Your task to perform on an android device: read, delete, or share a saved page in the chrome app Image 0: 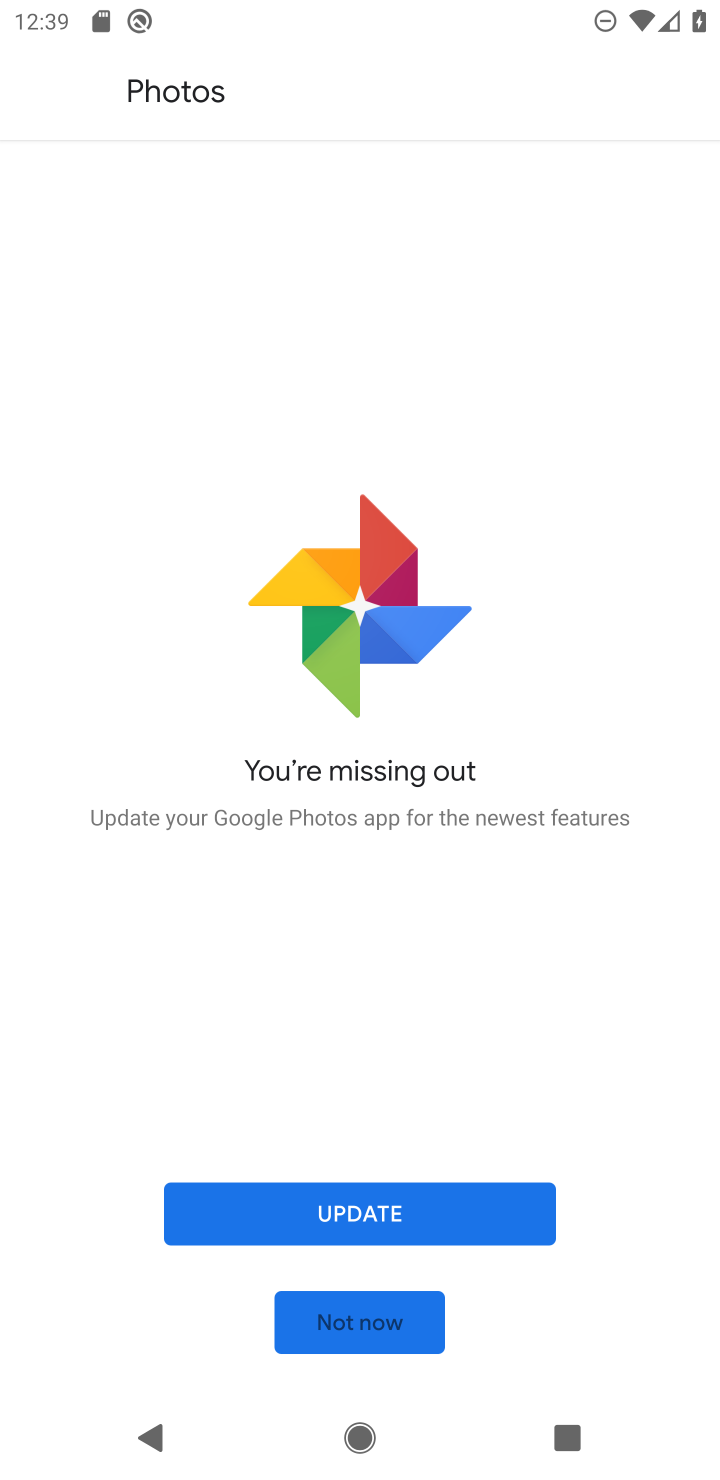
Step 0: press home button
Your task to perform on an android device: read, delete, or share a saved page in the chrome app Image 1: 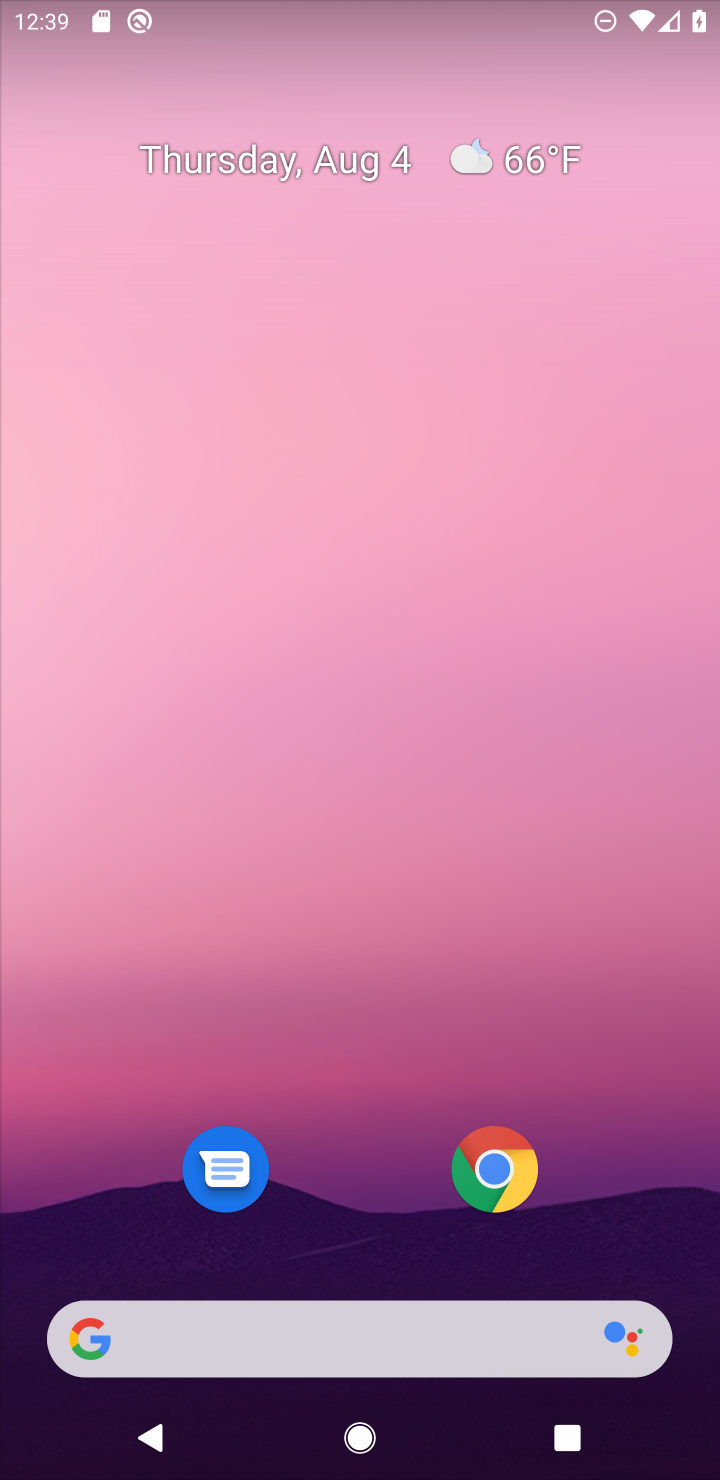
Step 1: click (510, 1184)
Your task to perform on an android device: read, delete, or share a saved page in the chrome app Image 2: 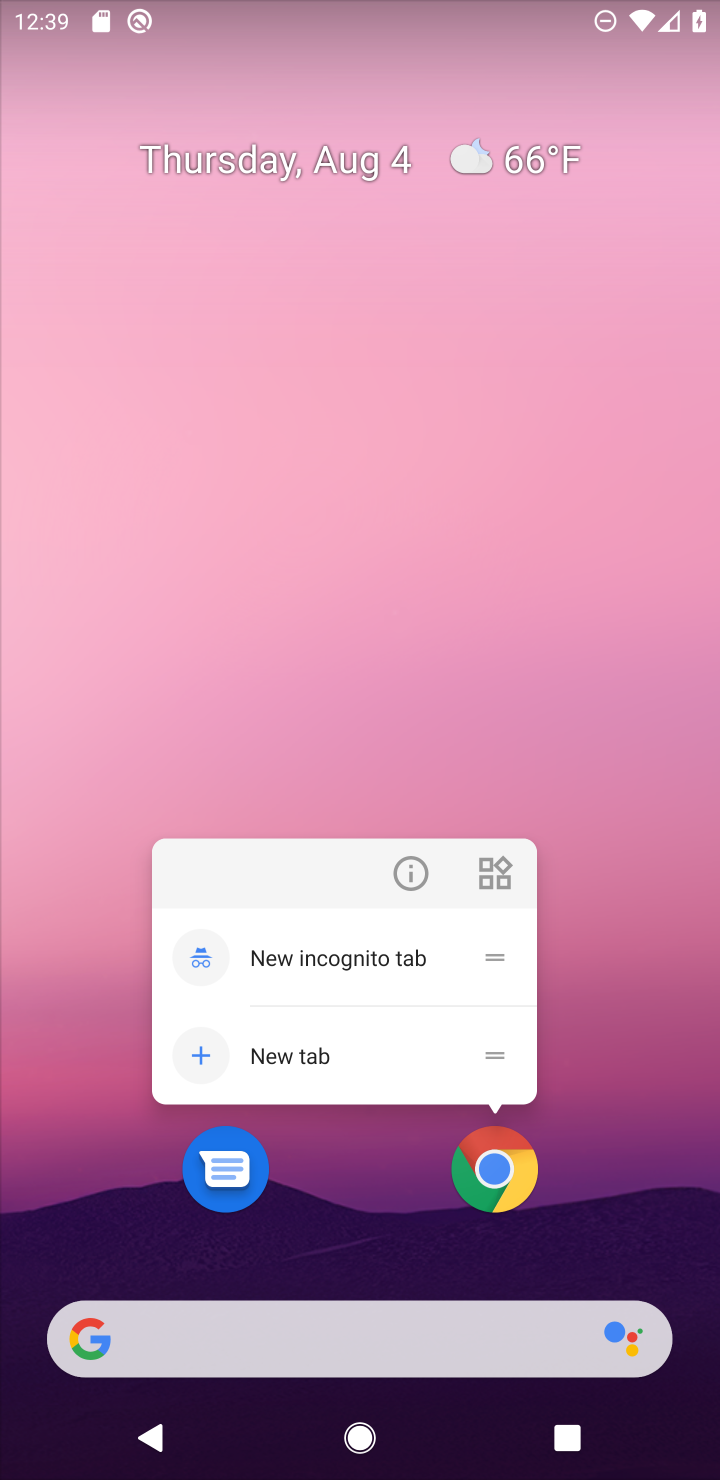
Step 2: click (503, 1177)
Your task to perform on an android device: read, delete, or share a saved page in the chrome app Image 3: 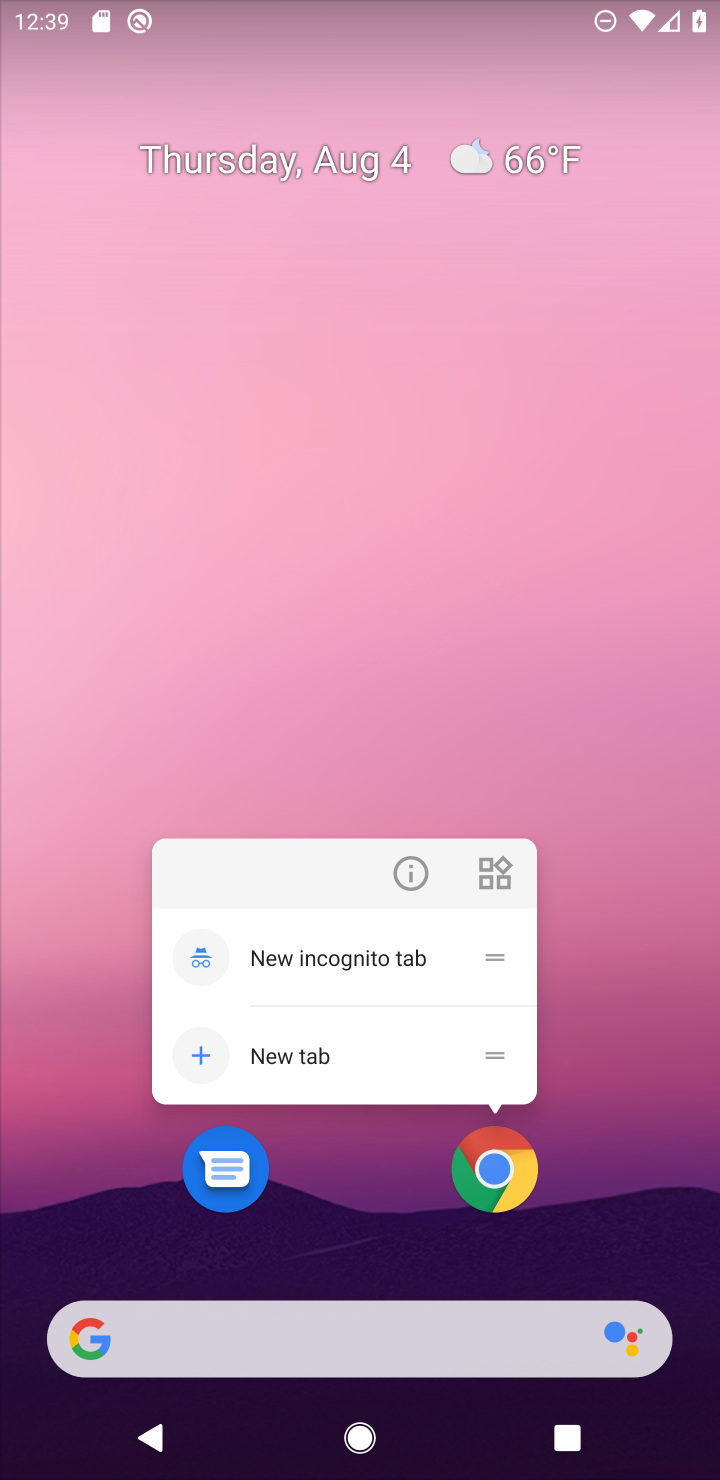
Step 3: click (503, 1177)
Your task to perform on an android device: read, delete, or share a saved page in the chrome app Image 4: 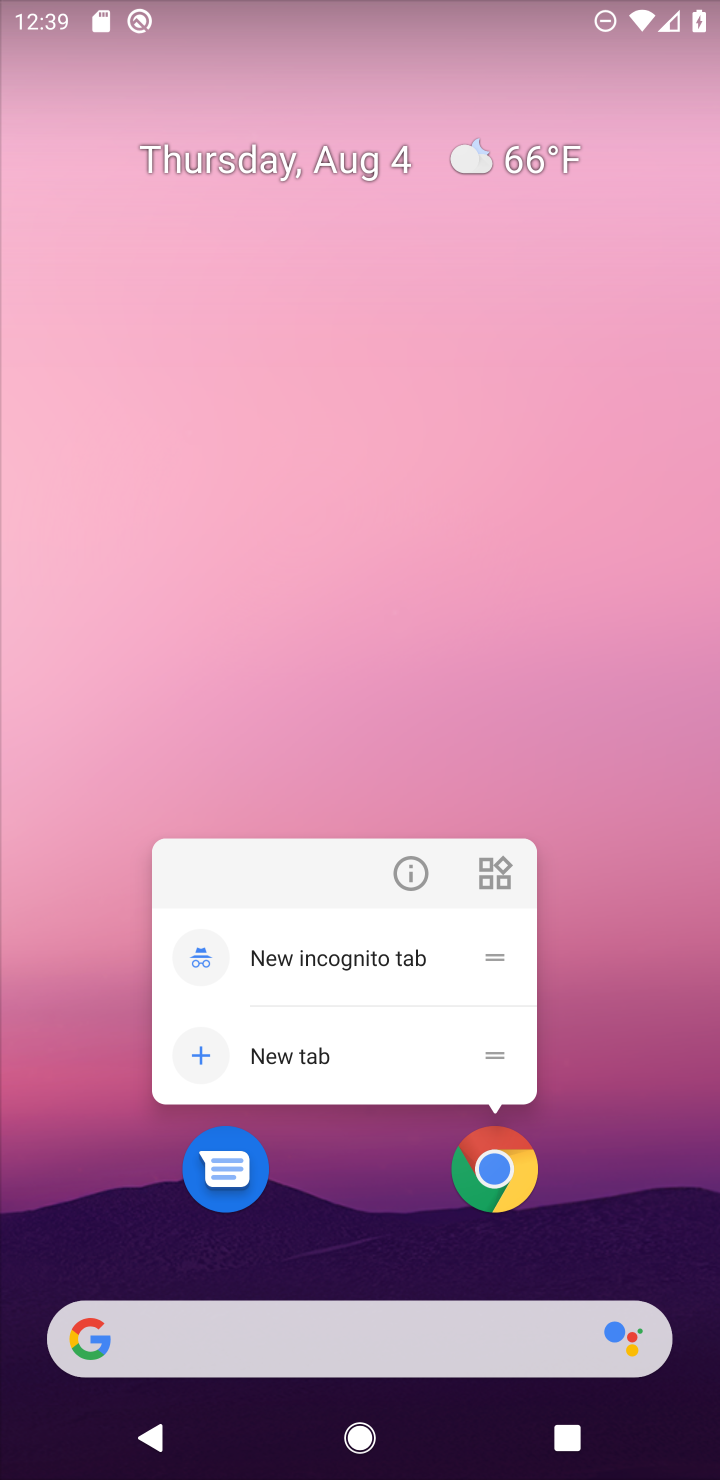
Step 4: click (503, 1177)
Your task to perform on an android device: read, delete, or share a saved page in the chrome app Image 5: 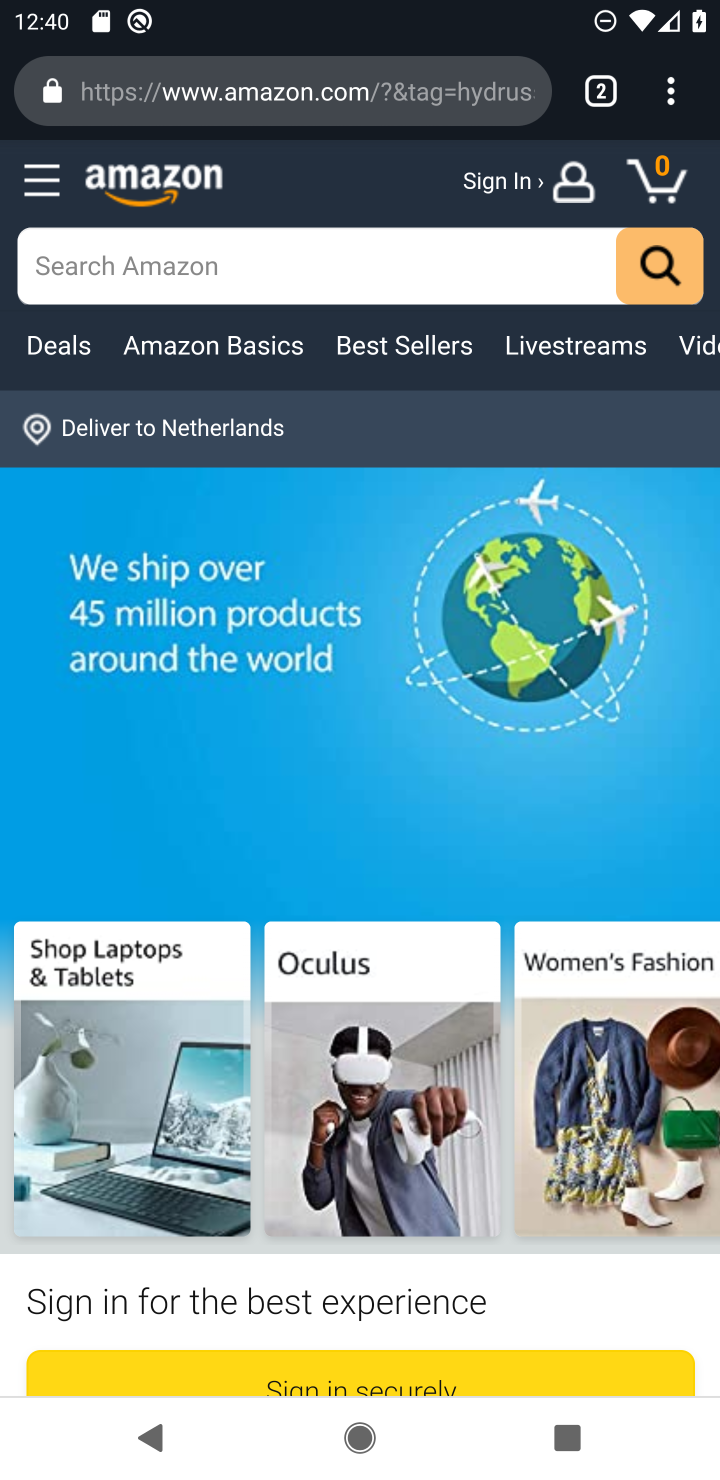
Step 5: click (673, 91)
Your task to perform on an android device: read, delete, or share a saved page in the chrome app Image 6: 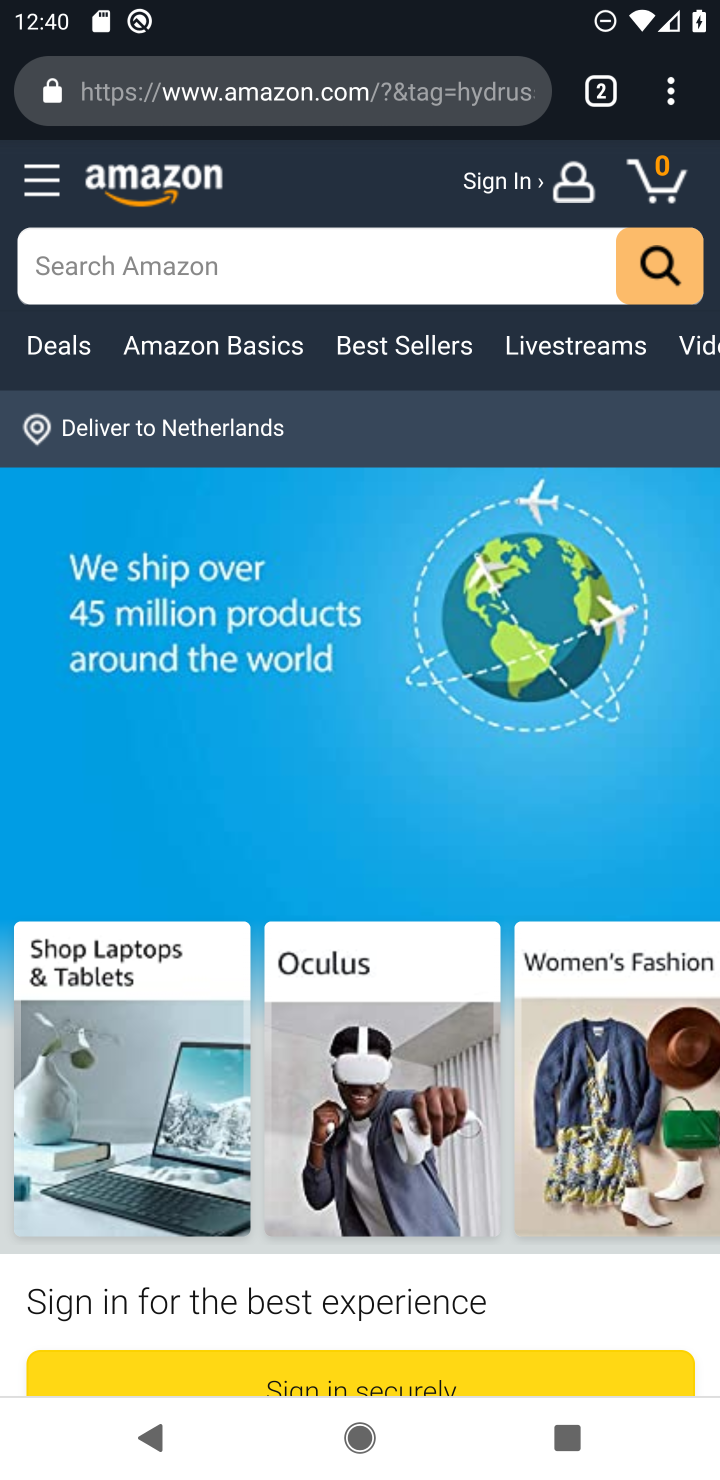
Step 6: click (672, 103)
Your task to perform on an android device: read, delete, or share a saved page in the chrome app Image 7: 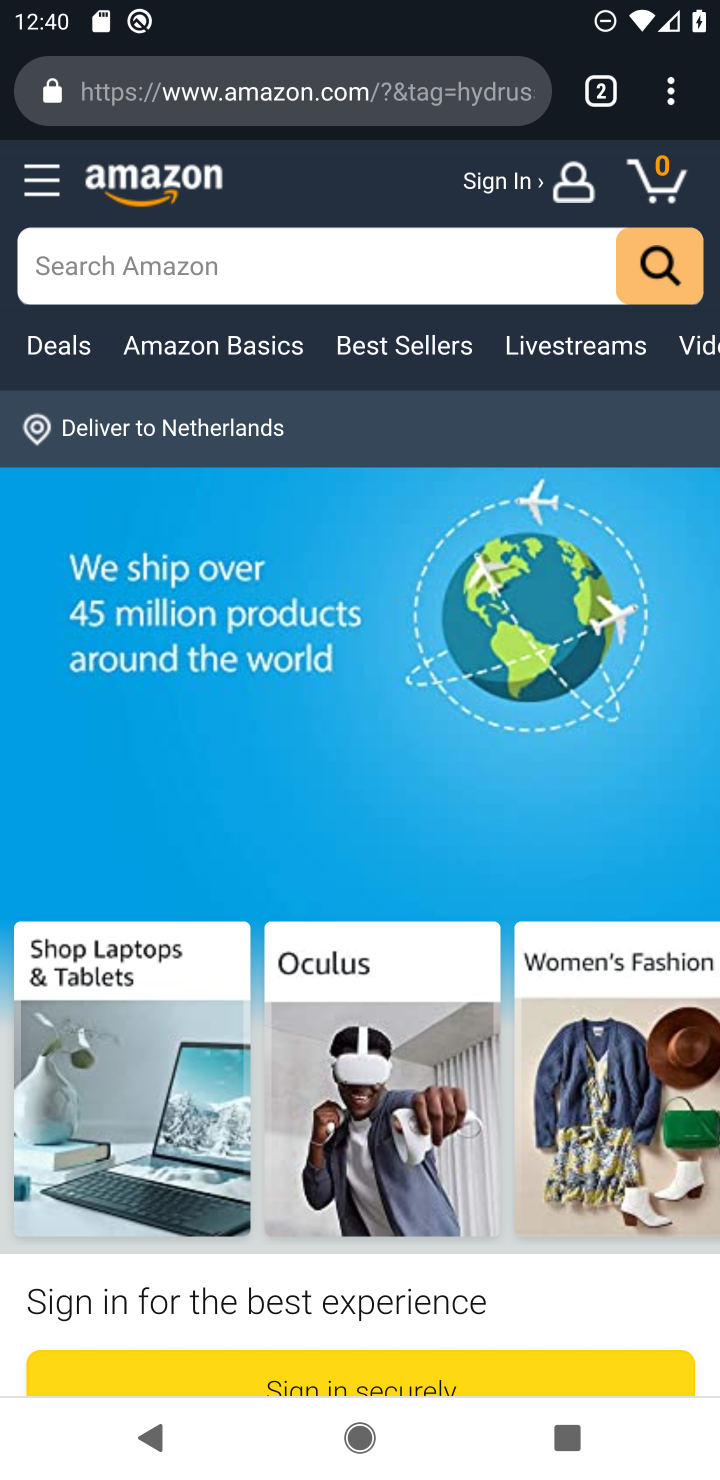
Step 7: click (670, 103)
Your task to perform on an android device: read, delete, or share a saved page in the chrome app Image 8: 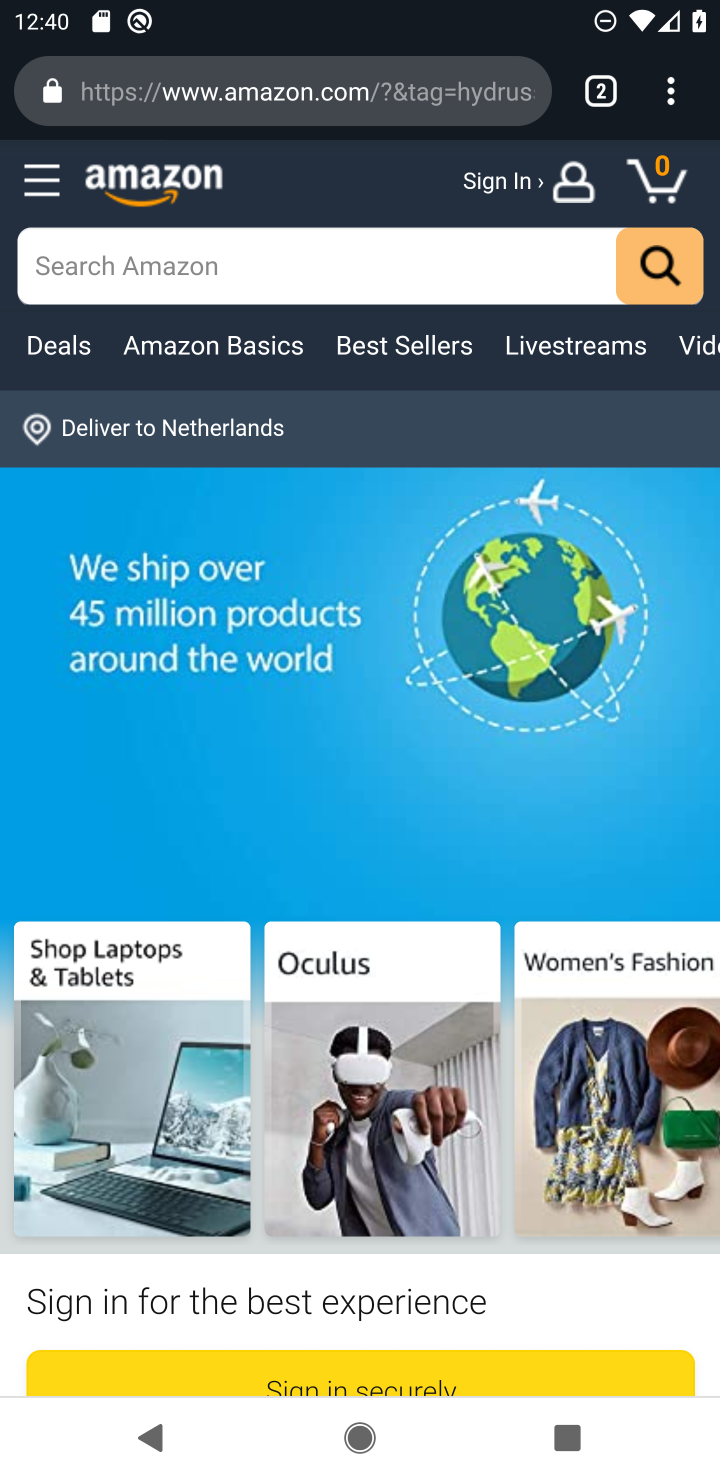
Step 8: click (671, 101)
Your task to perform on an android device: read, delete, or share a saved page in the chrome app Image 9: 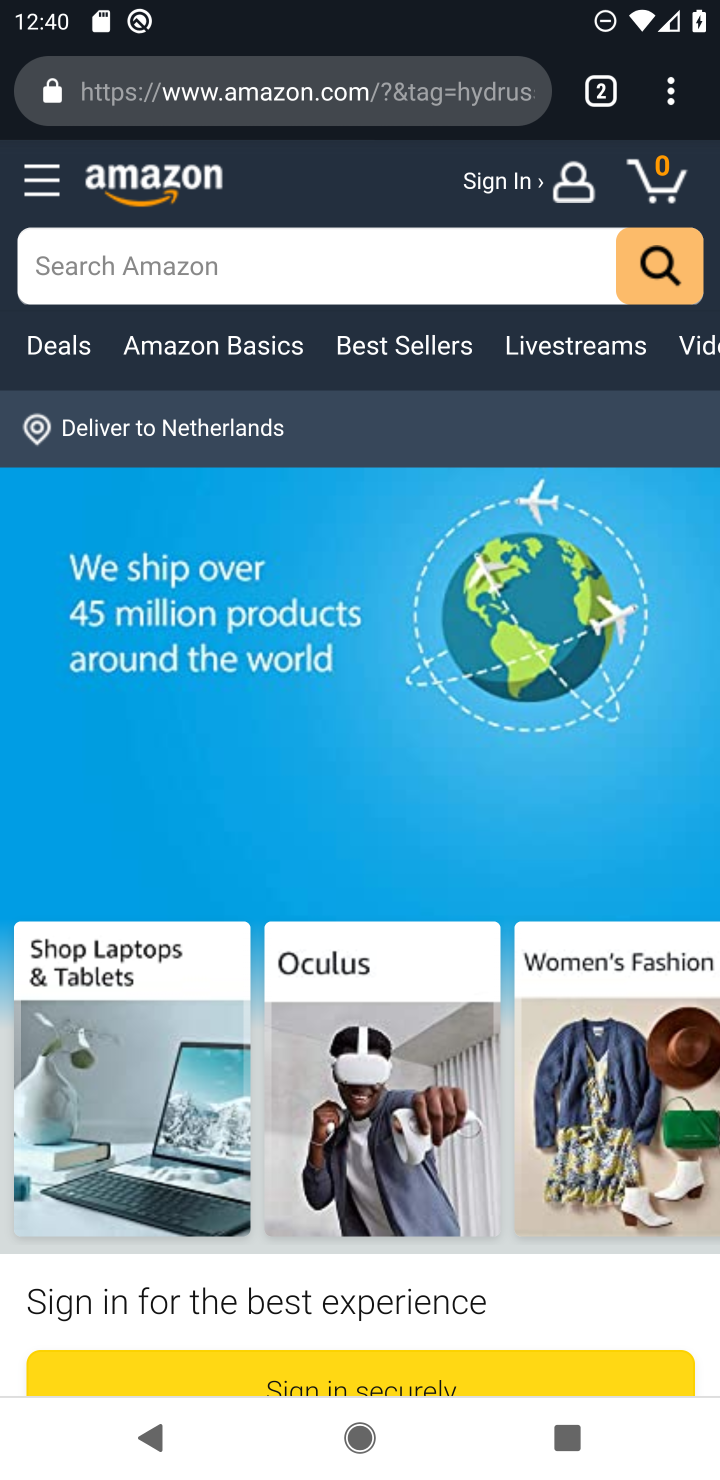
Step 9: click (675, 97)
Your task to perform on an android device: read, delete, or share a saved page in the chrome app Image 10: 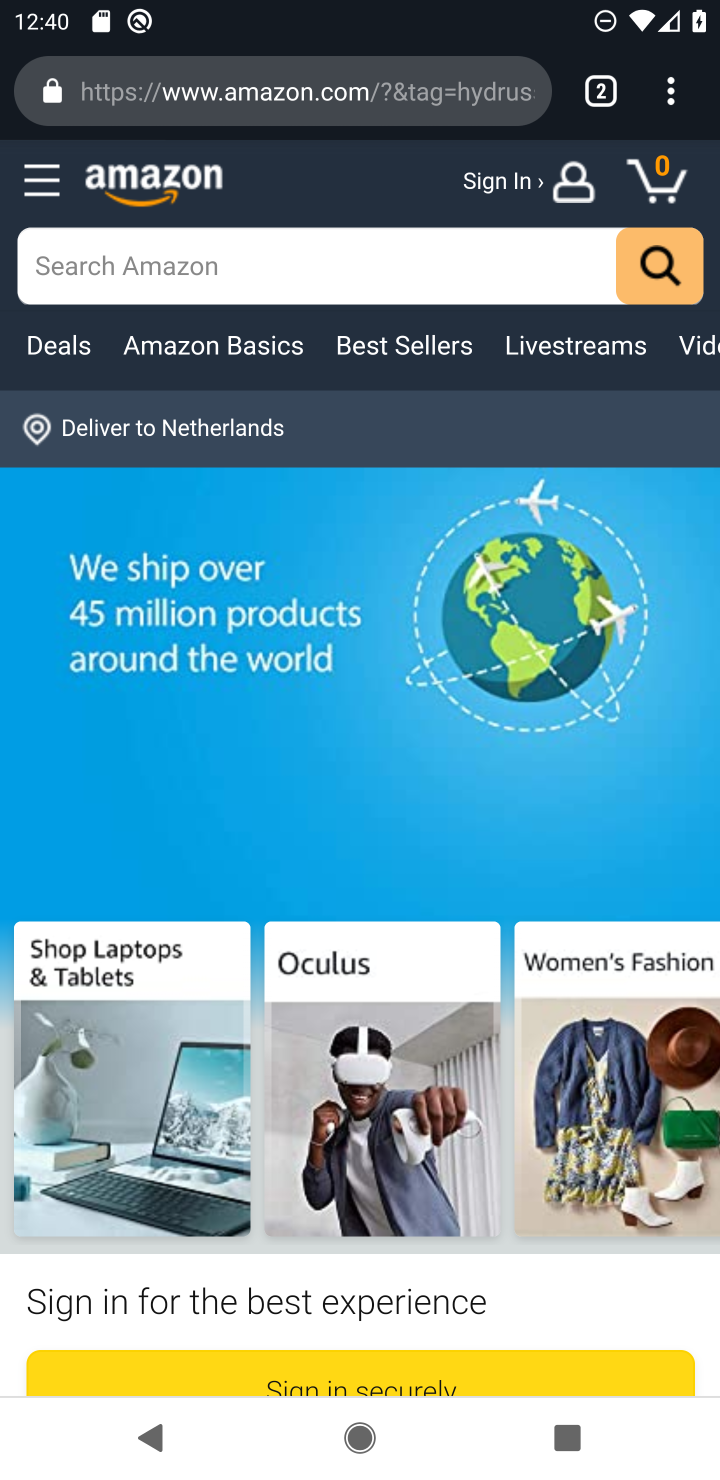
Step 10: click (675, 97)
Your task to perform on an android device: read, delete, or share a saved page in the chrome app Image 11: 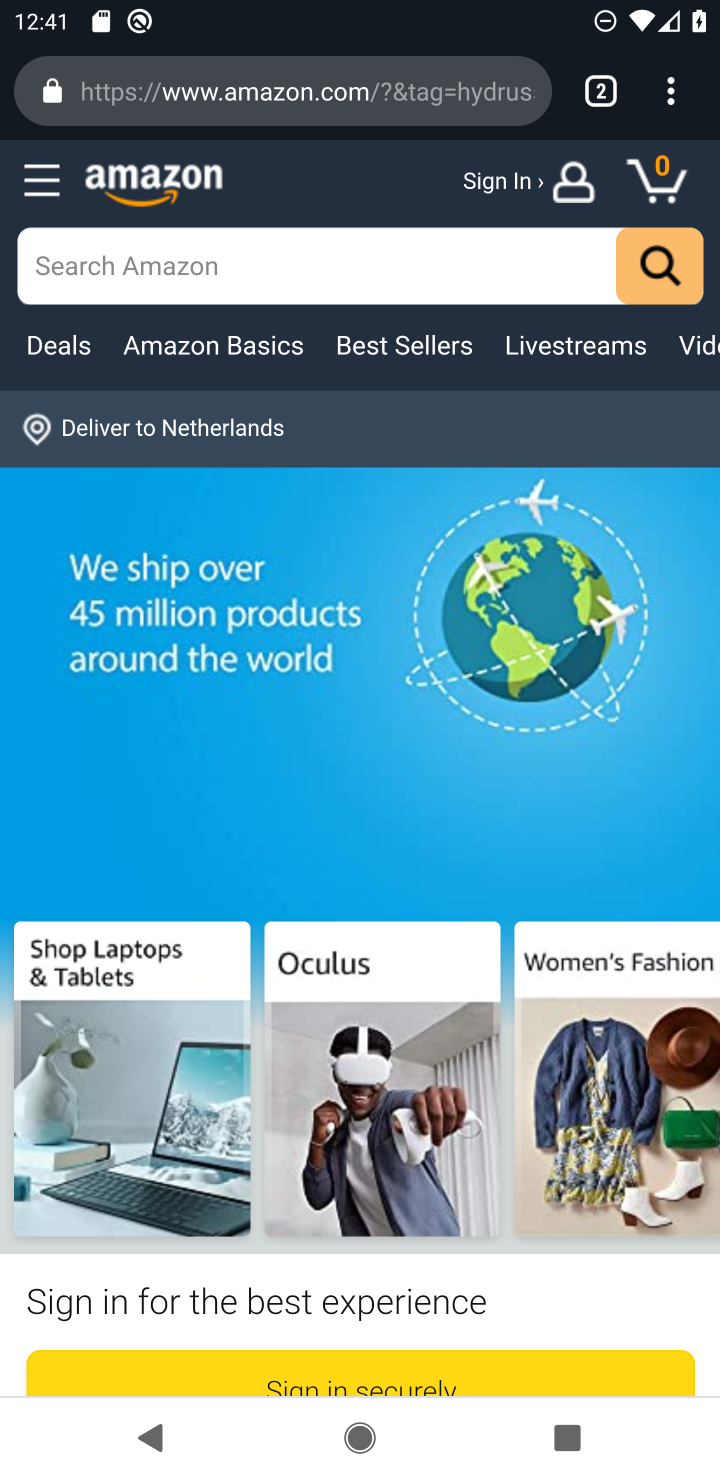
Step 11: click (672, 108)
Your task to perform on an android device: read, delete, or share a saved page in the chrome app Image 12: 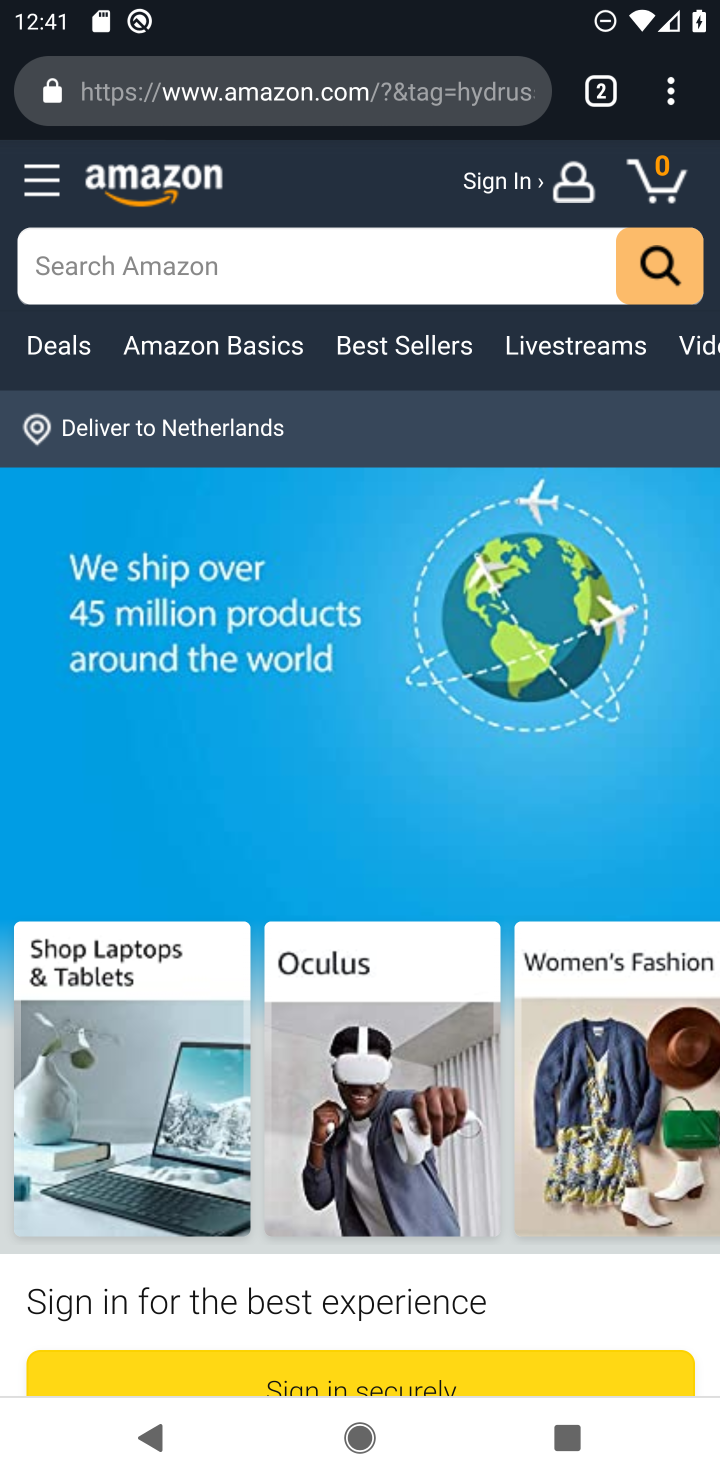
Step 12: drag from (679, 92) to (353, 588)
Your task to perform on an android device: read, delete, or share a saved page in the chrome app Image 13: 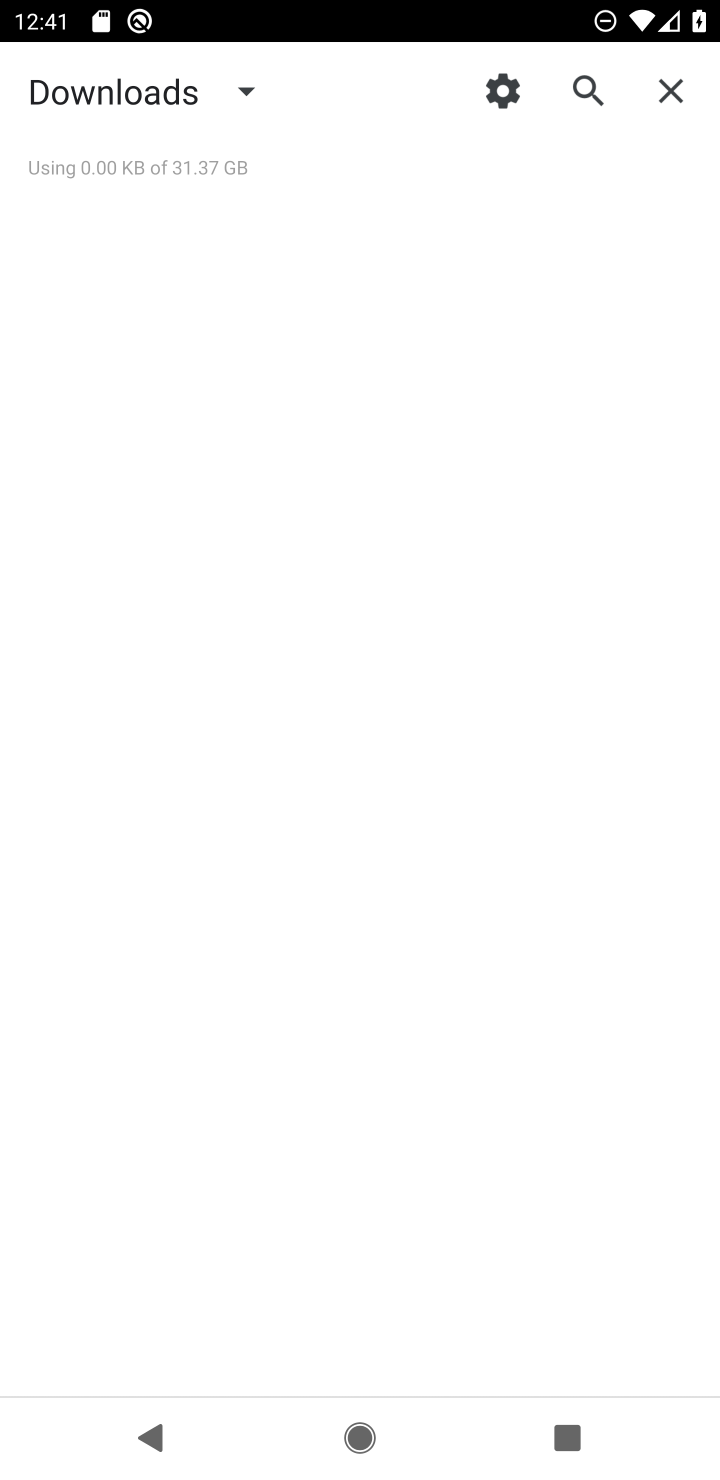
Step 13: click (249, 94)
Your task to perform on an android device: read, delete, or share a saved page in the chrome app Image 14: 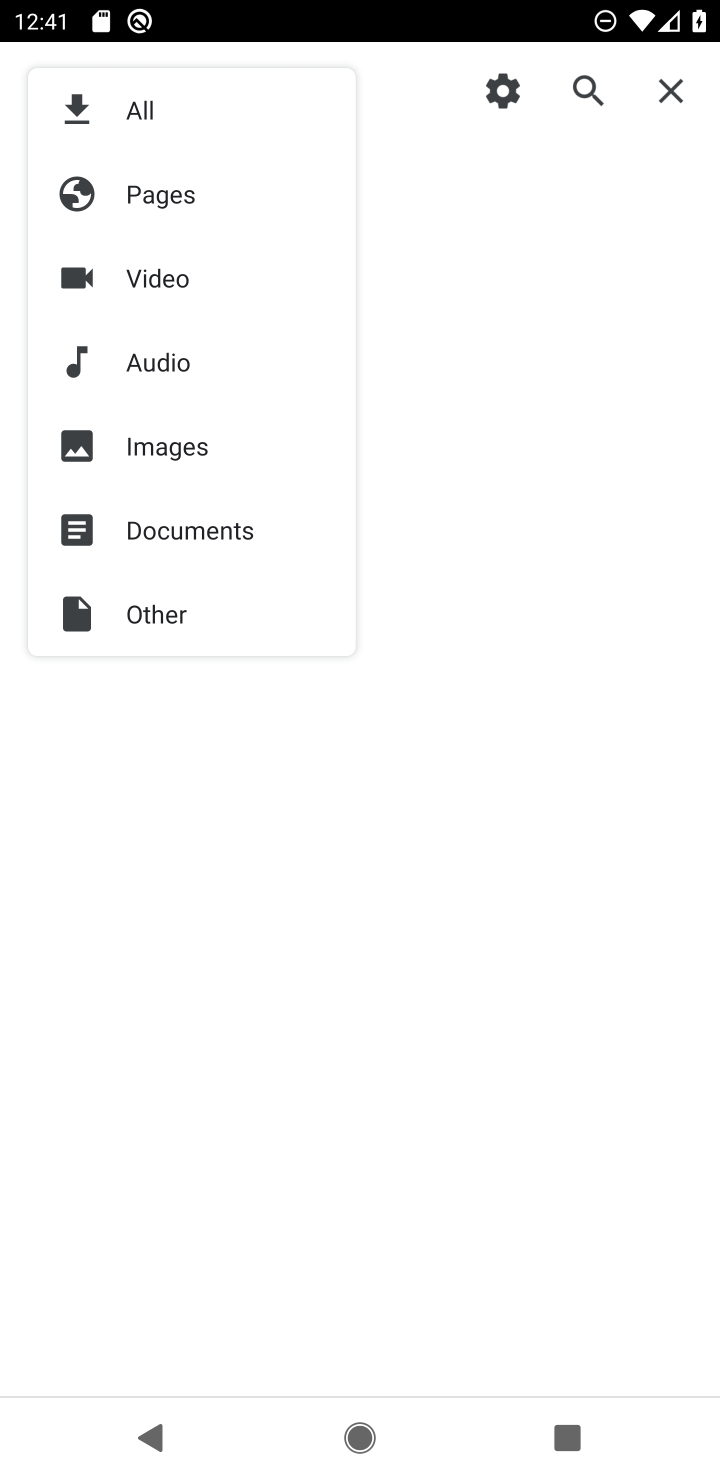
Step 14: click (160, 193)
Your task to perform on an android device: read, delete, or share a saved page in the chrome app Image 15: 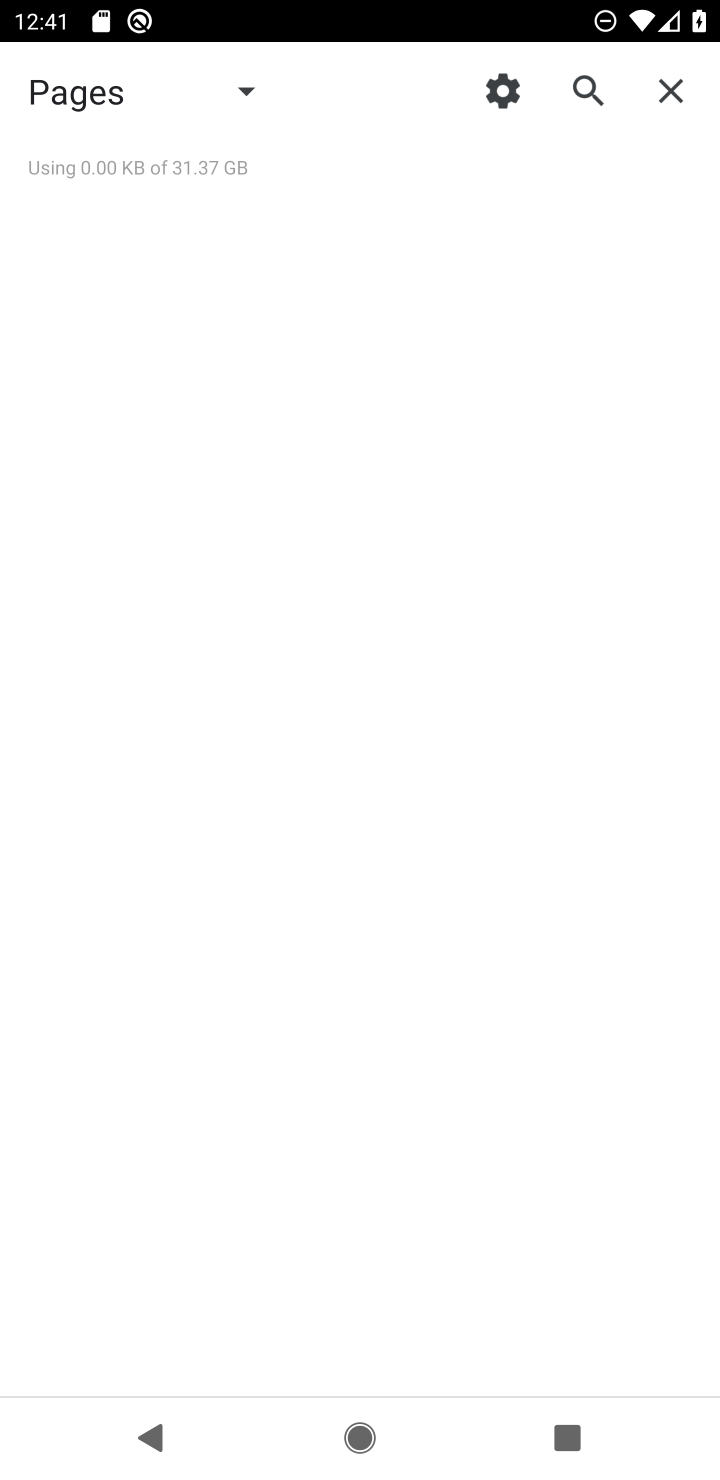
Step 15: task complete